Your task to perform on an android device: toggle translation in the chrome app Image 0: 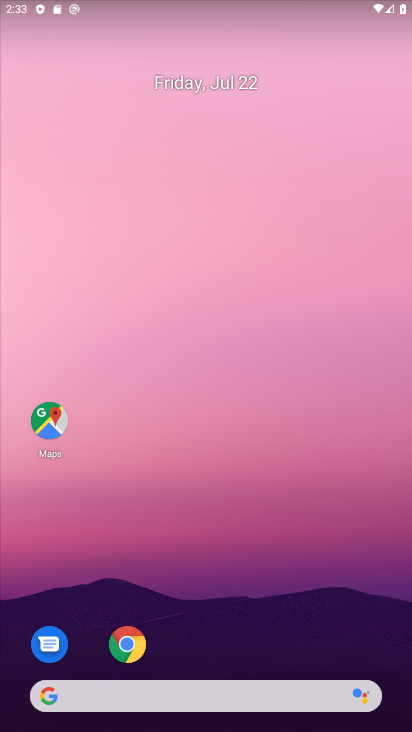
Step 0: drag from (218, 655) to (236, 152)
Your task to perform on an android device: toggle translation in the chrome app Image 1: 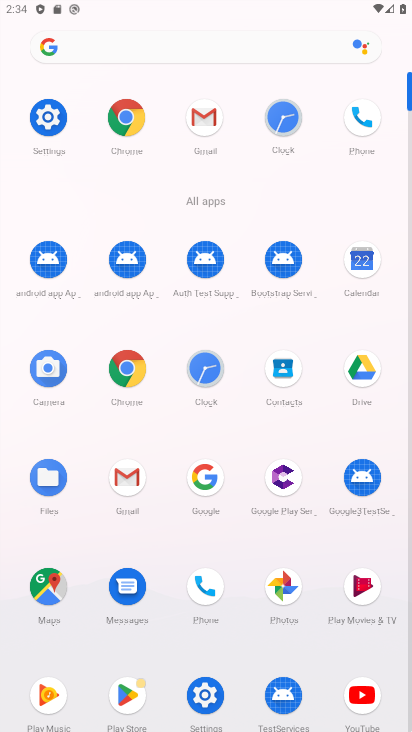
Step 1: click (117, 136)
Your task to perform on an android device: toggle translation in the chrome app Image 2: 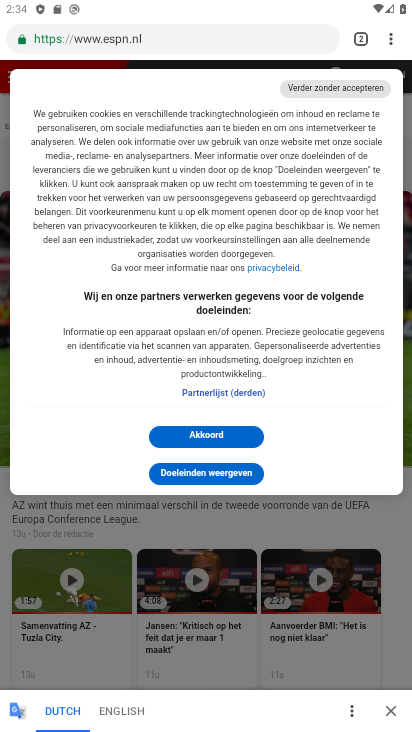
Step 2: drag from (395, 39) to (244, 515)
Your task to perform on an android device: toggle translation in the chrome app Image 3: 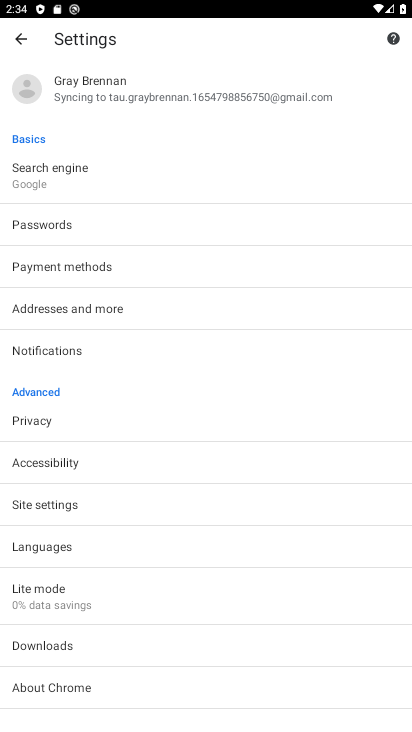
Step 3: click (44, 550)
Your task to perform on an android device: toggle translation in the chrome app Image 4: 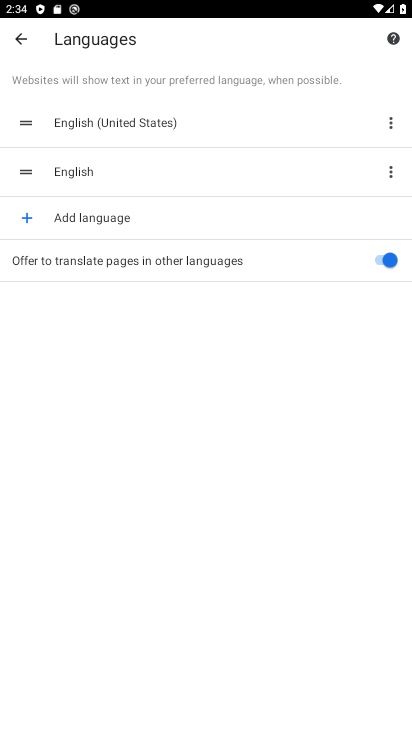
Step 4: click (389, 262)
Your task to perform on an android device: toggle translation in the chrome app Image 5: 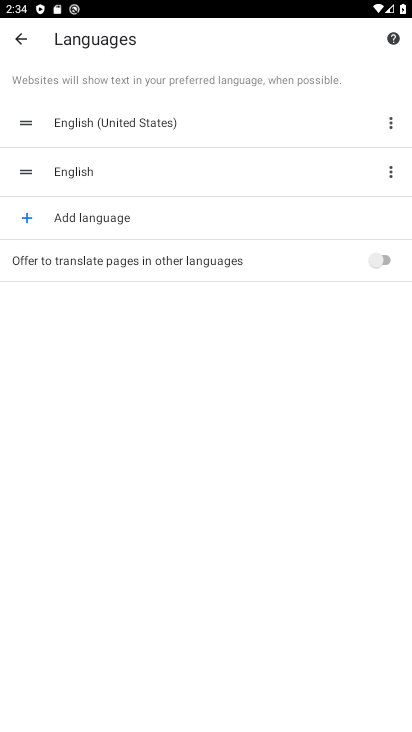
Step 5: task complete